Your task to perform on an android device: Search for sushi restaurants on Maps Image 0: 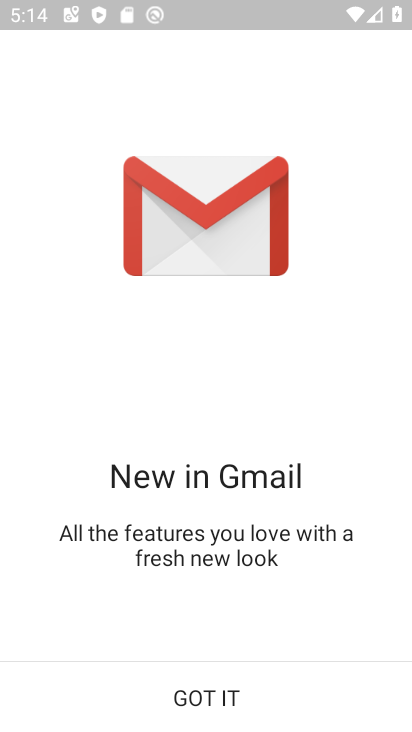
Step 0: press home button
Your task to perform on an android device: Search for sushi restaurants on Maps Image 1: 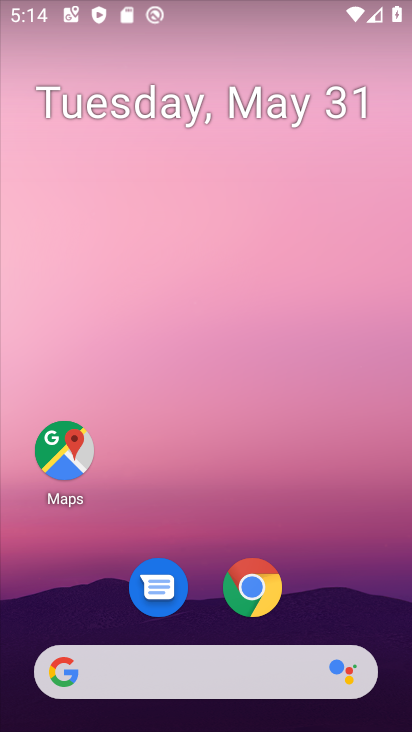
Step 1: click (82, 460)
Your task to perform on an android device: Search for sushi restaurants on Maps Image 2: 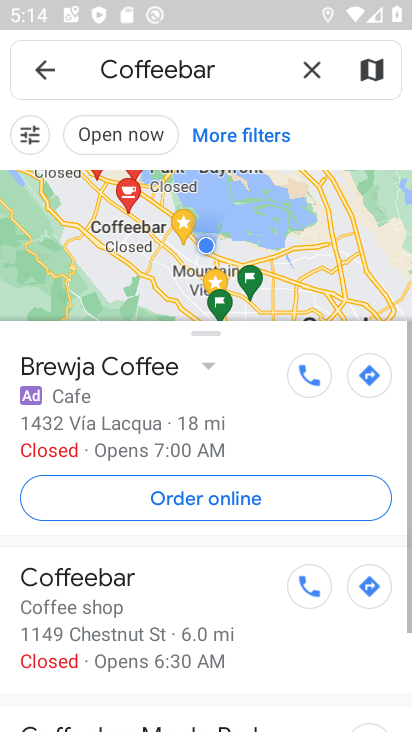
Step 2: click (307, 71)
Your task to perform on an android device: Search for sushi restaurants on Maps Image 3: 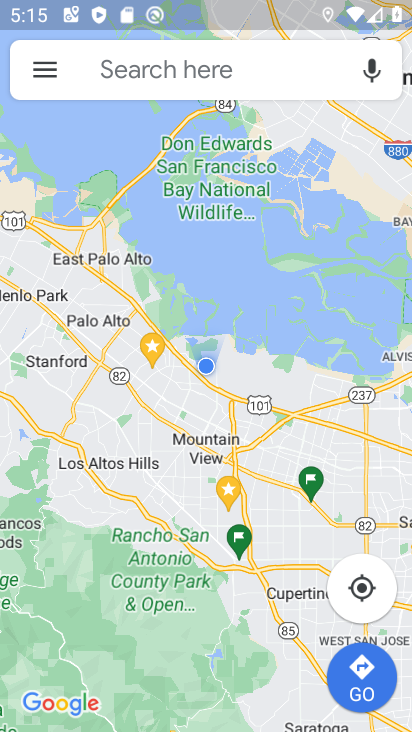
Step 3: click (307, 71)
Your task to perform on an android device: Search for sushi restaurants on Maps Image 4: 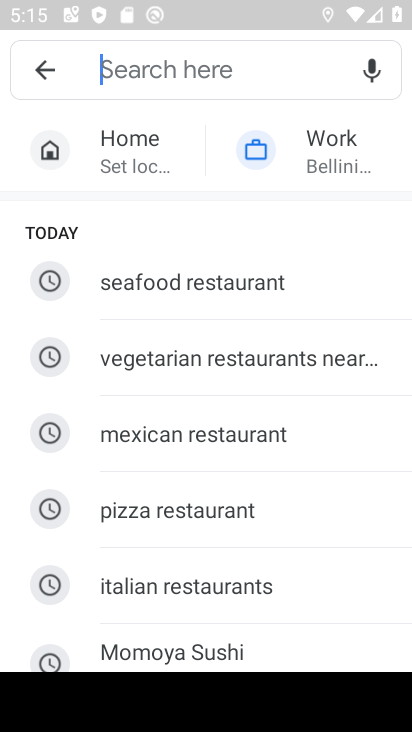
Step 4: type "sushi"
Your task to perform on an android device: Search for sushi restaurants on Maps Image 5: 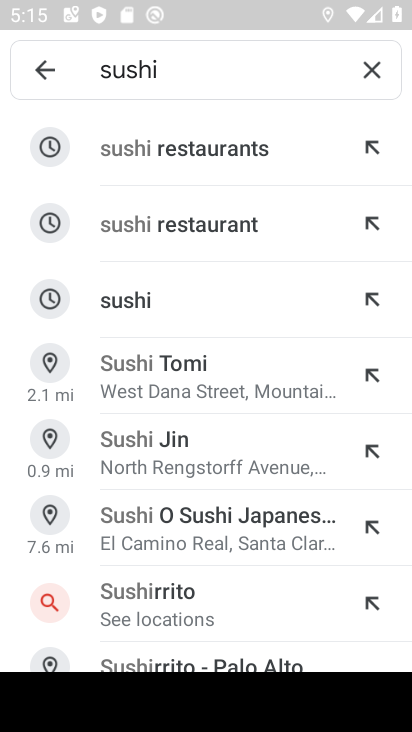
Step 5: click (202, 145)
Your task to perform on an android device: Search for sushi restaurants on Maps Image 6: 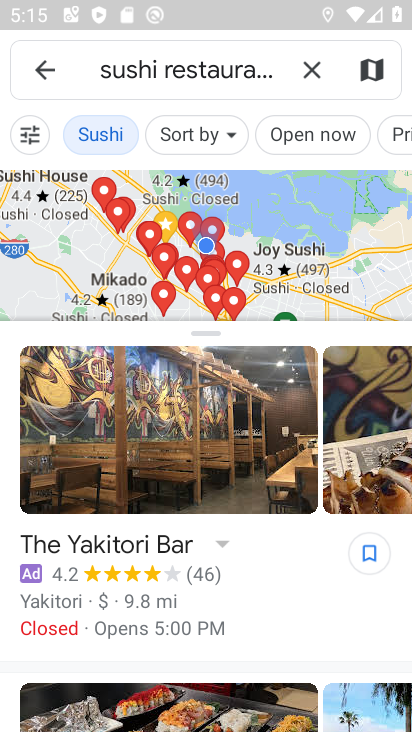
Step 6: task complete